Your task to perform on an android device: When is my next appointment? Image 0: 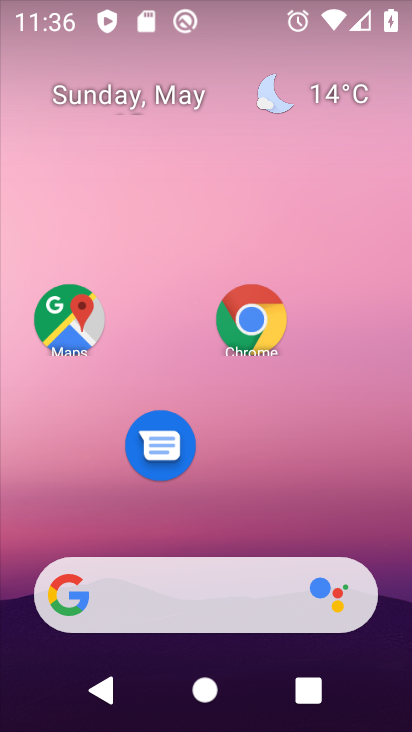
Step 0: press home button
Your task to perform on an android device: When is my next appointment? Image 1: 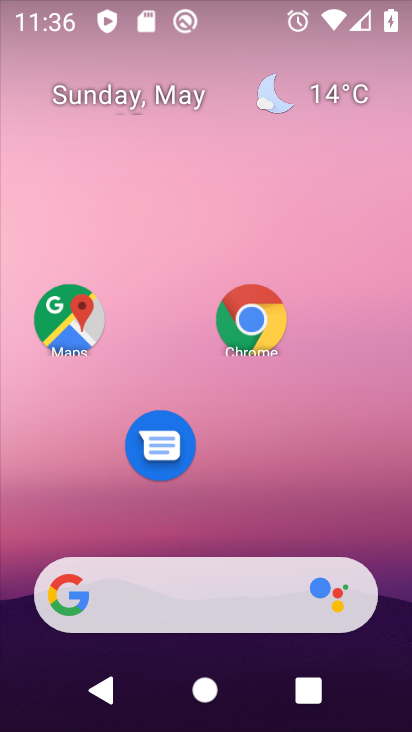
Step 1: drag from (289, 215) to (338, 102)
Your task to perform on an android device: When is my next appointment? Image 2: 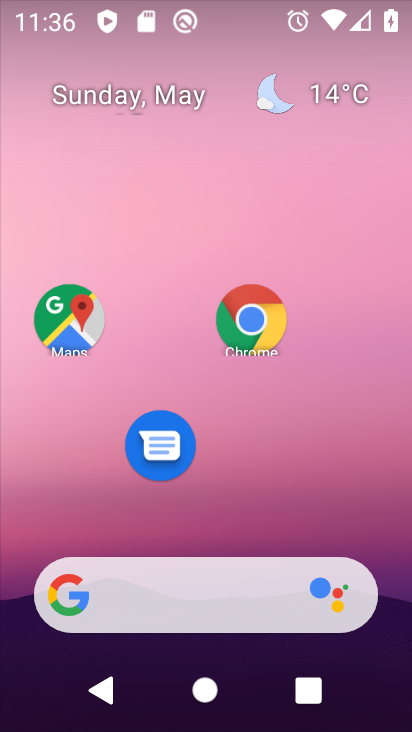
Step 2: drag from (212, 601) to (318, 53)
Your task to perform on an android device: When is my next appointment? Image 3: 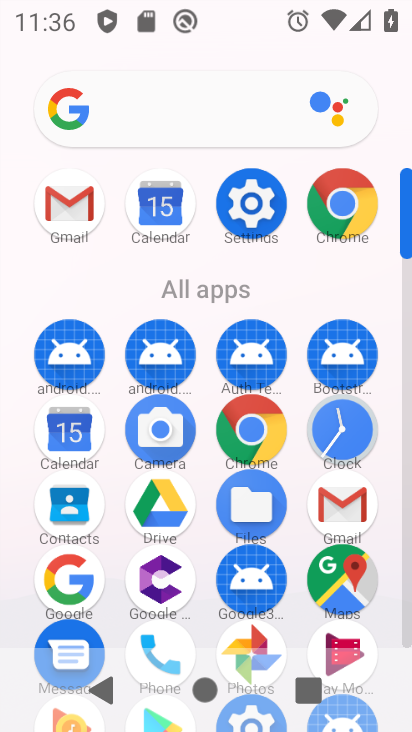
Step 3: click (162, 218)
Your task to perform on an android device: When is my next appointment? Image 4: 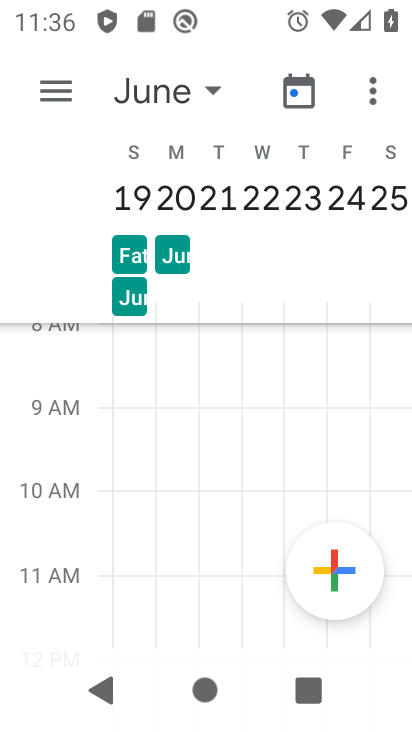
Step 4: click (123, 92)
Your task to perform on an android device: When is my next appointment? Image 5: 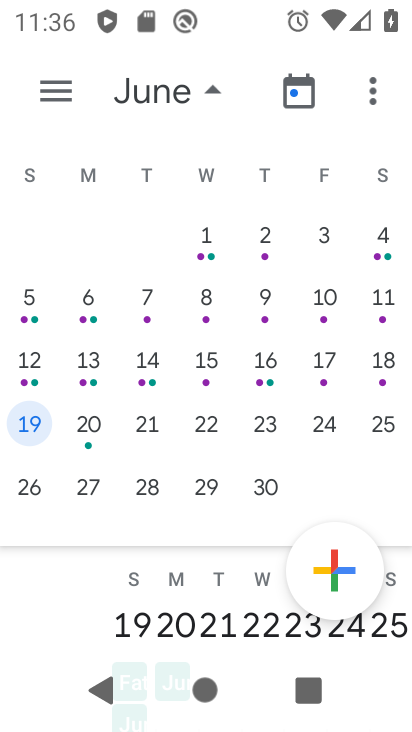
Step 5: drag from (29, 339) to (382, 336)
Your task to perform on an android device: When is my next appointment? Image 6: 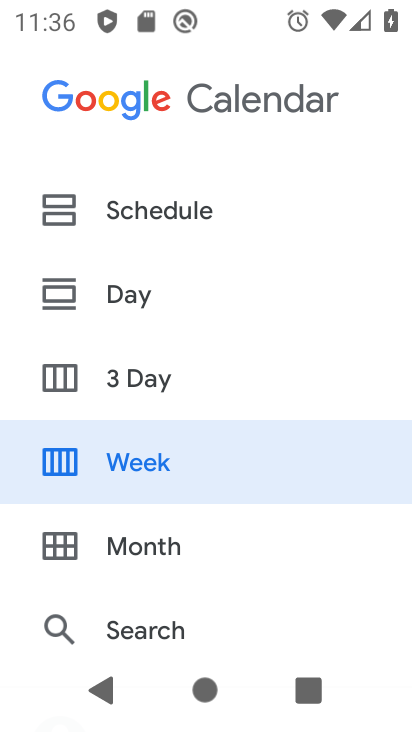
Step 6: drag from (384, 345) to (33, 341)
Your task to perform on an android device: When is my next appointment? Image 7: 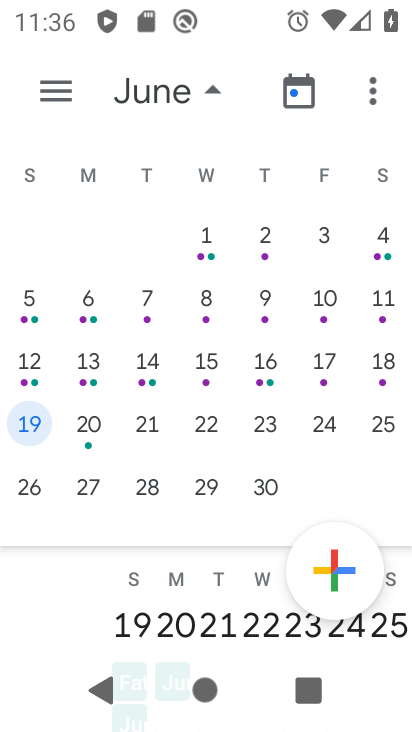
Step 7: drag from (209, 283) to (409, 280)
Your task to perform on an android device: When is my next appointment? Image 8: 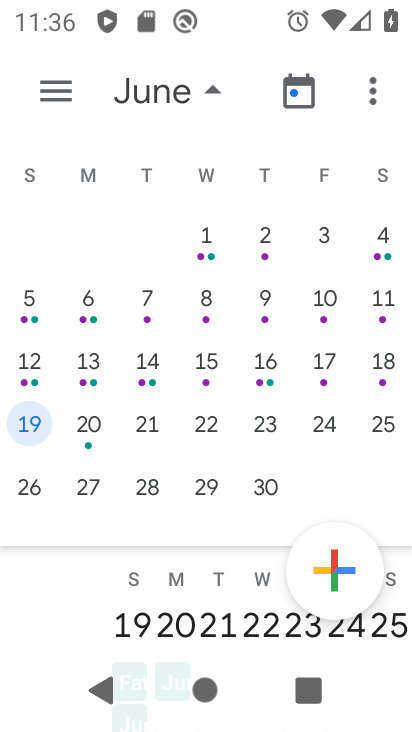
Step 8: drag from (141, 397) to (385, 387)
Your task to perform on an android device: When is my next appointment? Image 9: 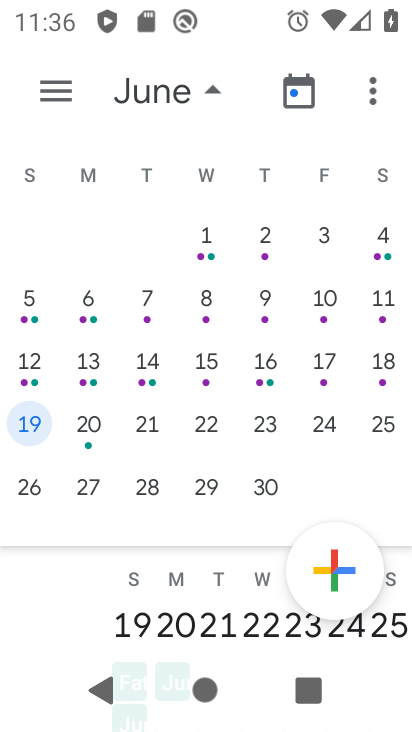
Step 9: drag from (116, 329) to (402, 342)
Your task to perform on an android device: When is my next appointment? Image 10: 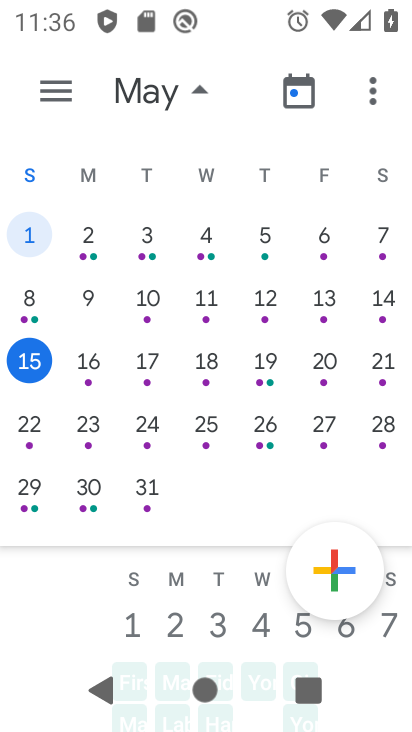
Step 10: click (31, 365)
Your task to perform on an android device: When is my next appointment? Image 11: 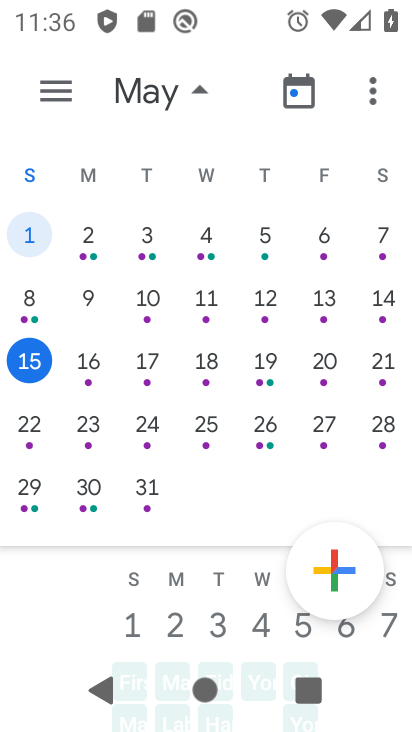
Step 11: click (32, 357)
Your task to perform on an android device: When is my next appointment? Image 12: 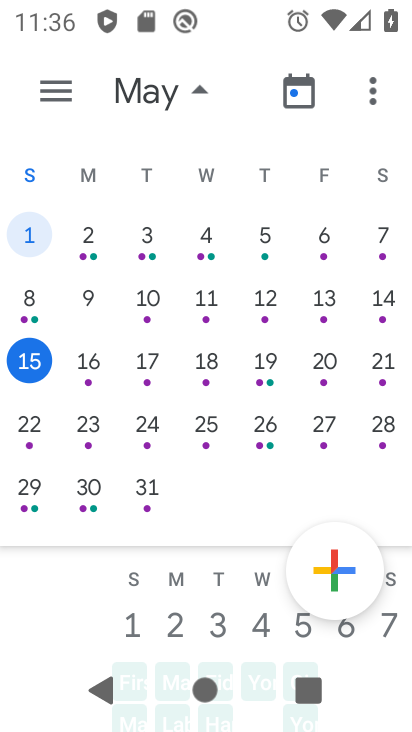
Step 12: click (48, 359)
Your task to perform on an android device: When is my next appointment? Image 13: 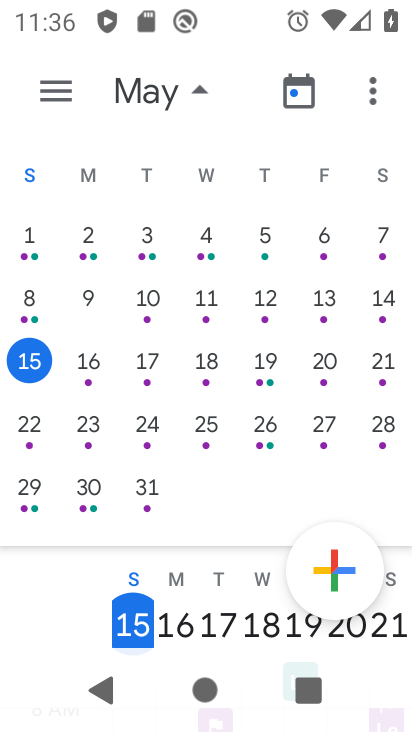
Step 13: click (64, 98)
Your task to perform on an android device: When is my next appointment? Image 14: 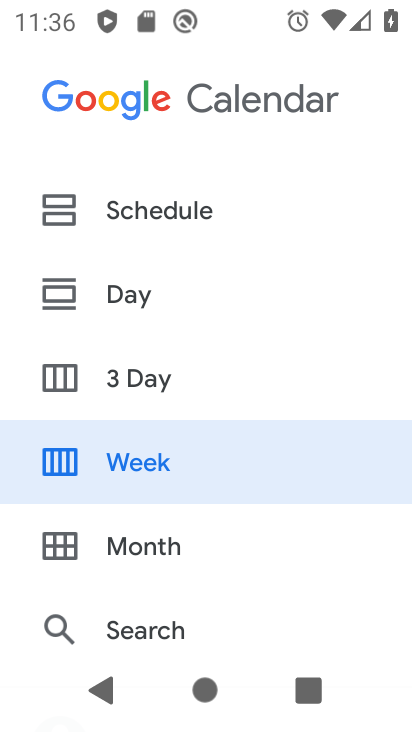
Step 14: click (143, 203)
Your task to perform on an android device: When is my next appointment? Image 15: 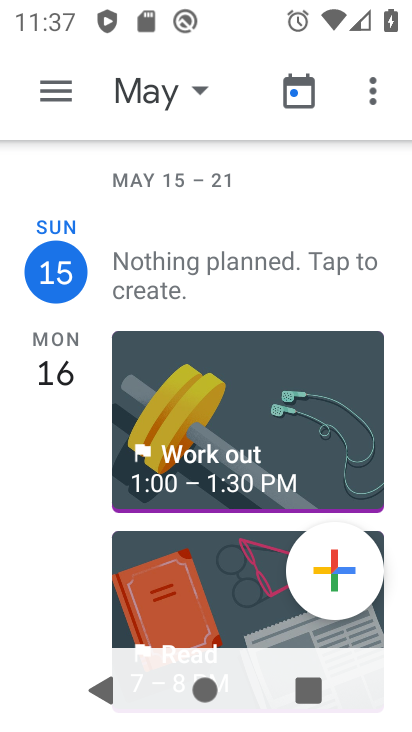
Step 15: task complete